Your task to perform on an android device: Search for vegetarian restaurants on Maps Image 0: 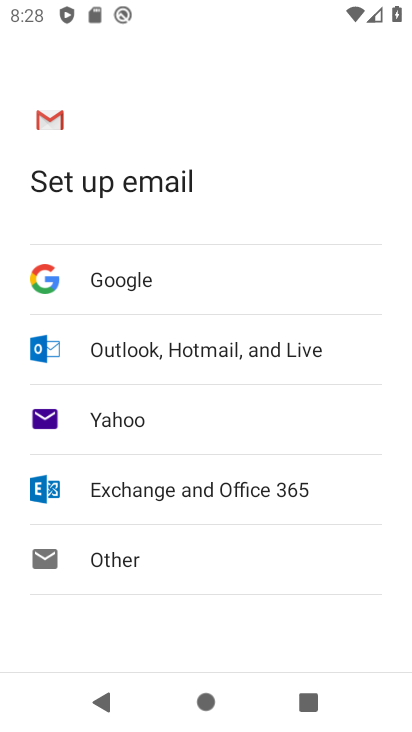
Step 0: press home button
Your task to perform on an android device: Search for vegetarian restaurants on Maps Image 1: 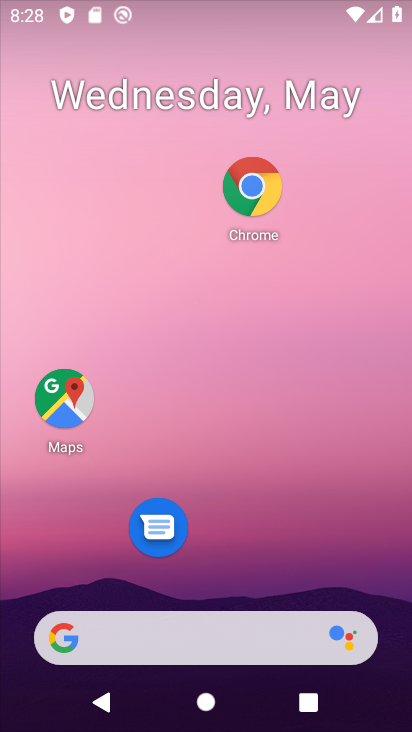
Step 1: drag from (335, 673) to (358, 27)
Your task to perform on an android device: Search for vegetarian restaurants on Maps Image 2: 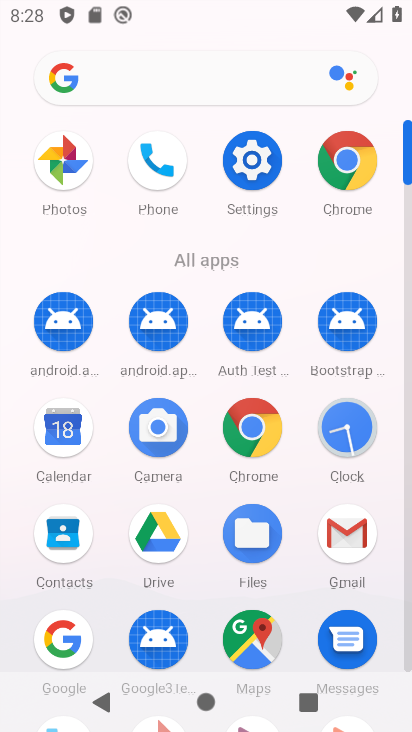
Step 2: click (262, 627)
Your task to perform on an android device: Search for vegetarian restaurants on Maps Image 3: 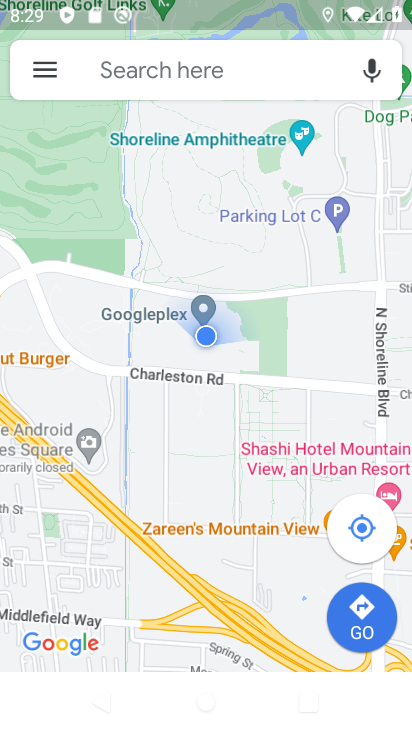
Step 3: click (132, 75)
Your task to perform on an android device: Search for vegetarian restaurants on Maps Image 4: 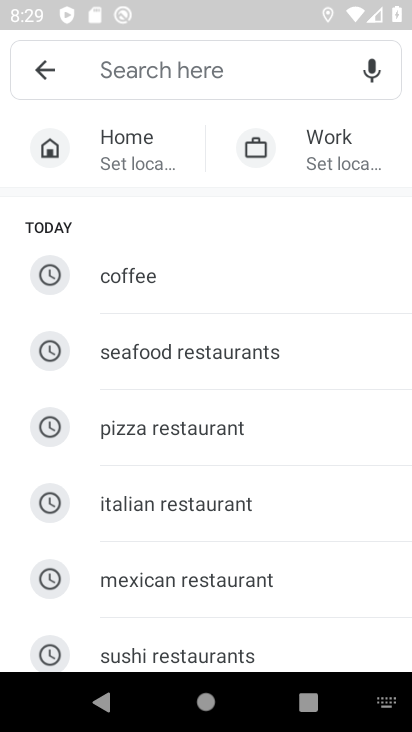
Step 4: drag from (243, 675) to (222, 447)
Your task to perform on an android device: Search for vegetarian restaurants on Maps Image 5: 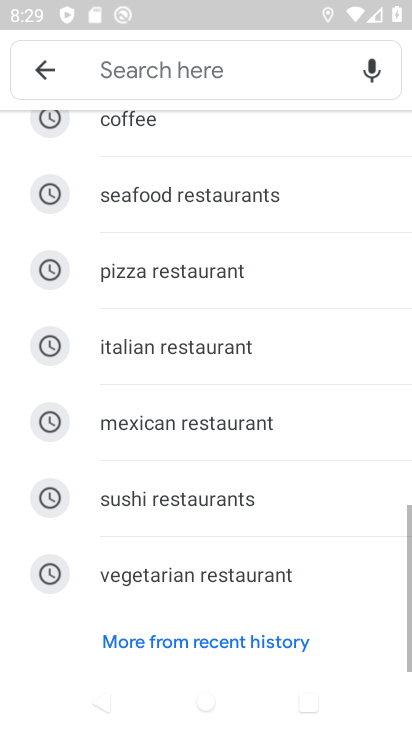
Step 5: click (224, 564)
Your task to perform on an android device: Search for vegetarian restaurants on Maps Image 6: 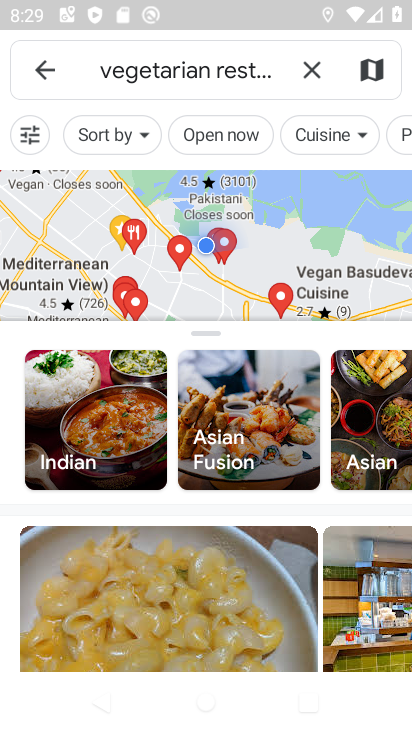
Step 6: task complete